Your task to perform on an android device: turn on the 12-hour format for clock Image 0: 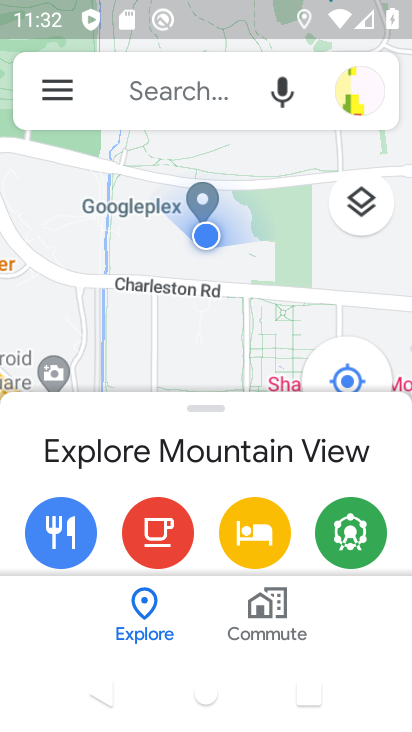
Step 0: press home button
Your task to perform on an android device: turn on the 12-hour format for clock Image 1: 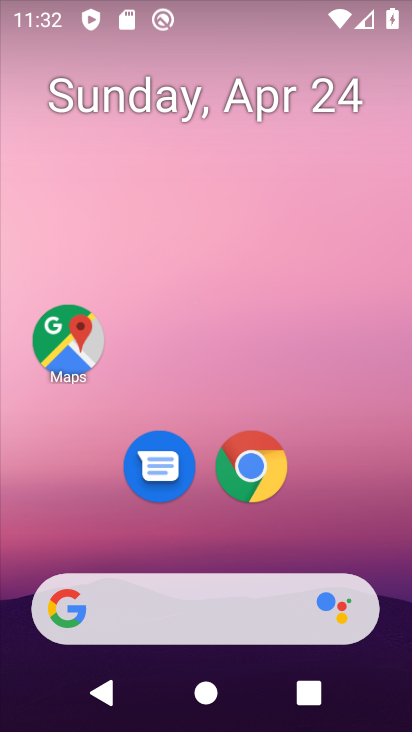
Step 1: drag from (315, 508) to (371, 122)
Your task to perform on an android device: turn on the 12-hour format for clock Image 2: 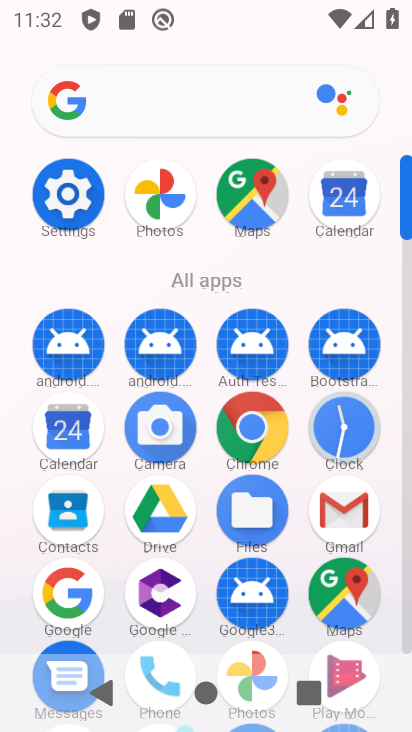
Step 2: click (343, 413)
Your task to perform on an android device: turn on the 12-hour format for clock Image 3: 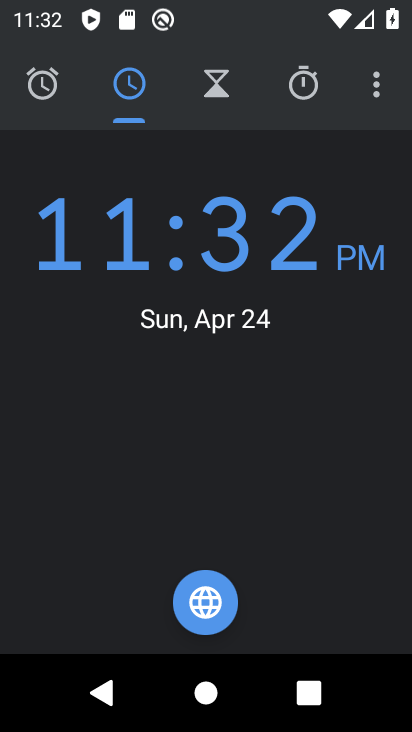
Step 3: click (376, 76)
Your task to perform on an android device: turn on the 12-hour format for clock Image 4: 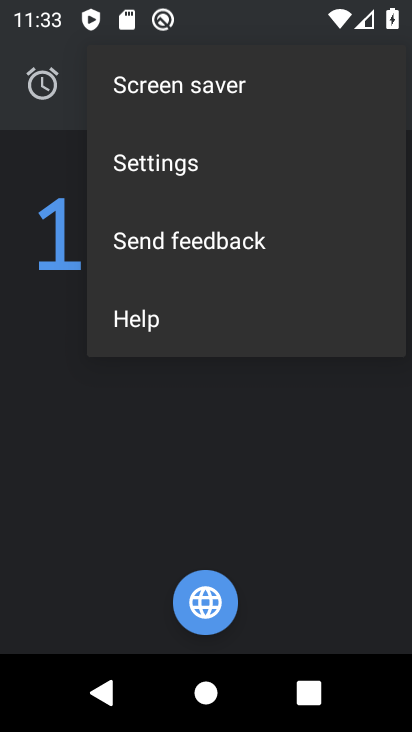
Step 4: click (231, 187)
Your task to perform on an android device: turn on the 12-hour format for clock Image 5: 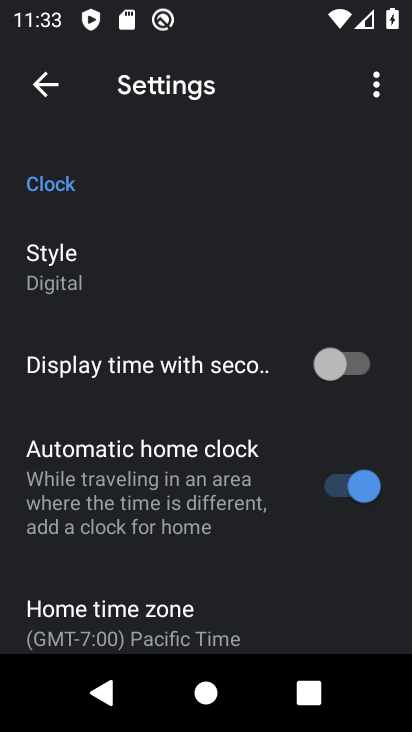
Step 5: drag from (236, 546) to (242, 185)
Your task to perform on an android device: turn on the 12-hour format for clock Image 6: 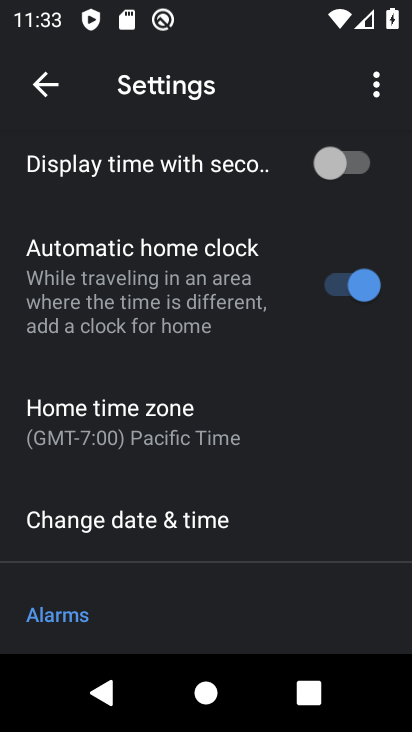
Step 6: click (173, 525)
Your task to perform on an android device: turn on the 12-hour format for clock Image 7: 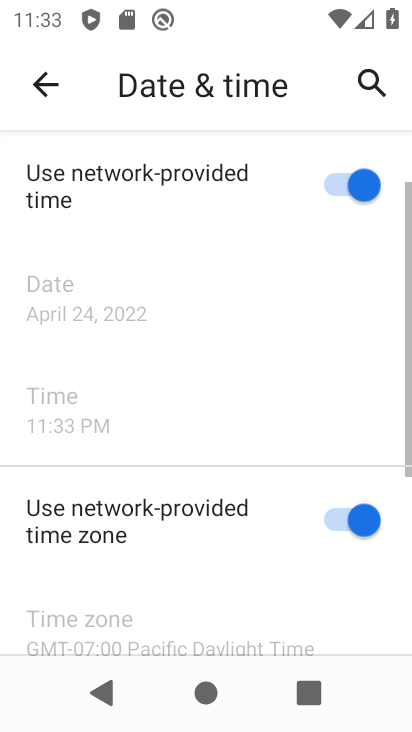
Step 7: task complete